Your task to perform on an android device: Open wifi settings Image 0: 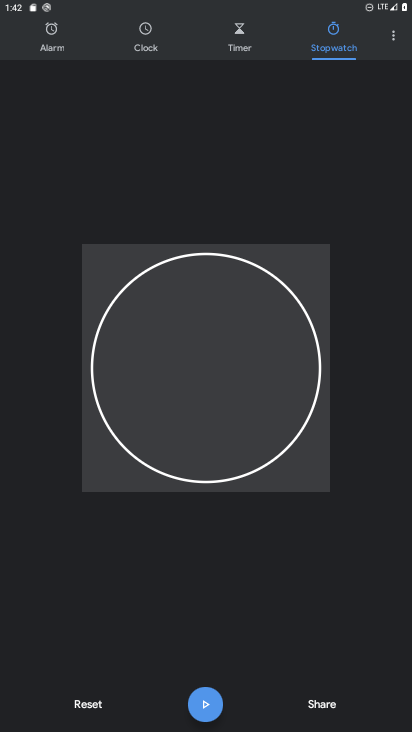
Step 0: press home button
Your task to perform on an android device: Open wifi settings Image 1: 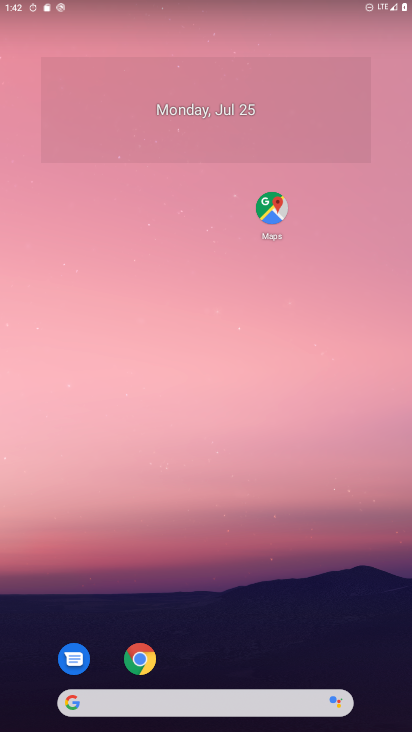
Step 1: drag from (33, 692) to (216, 199)
Your task to perform on an android device: Open wifi settings Image 2: 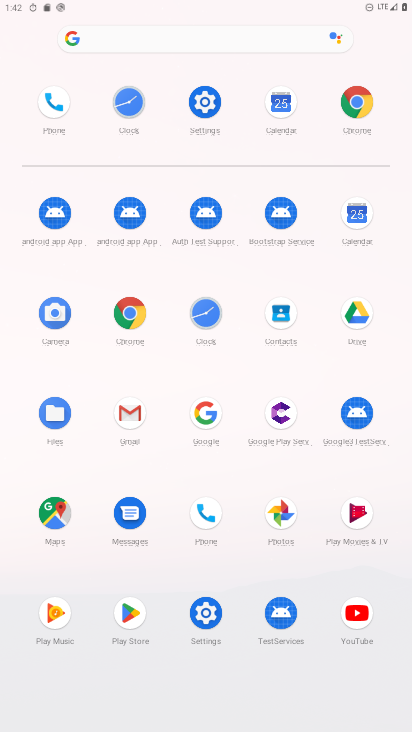
Step 2: click (191, 605)
Your task to perform on an android device: Open wifi settings Image 3: 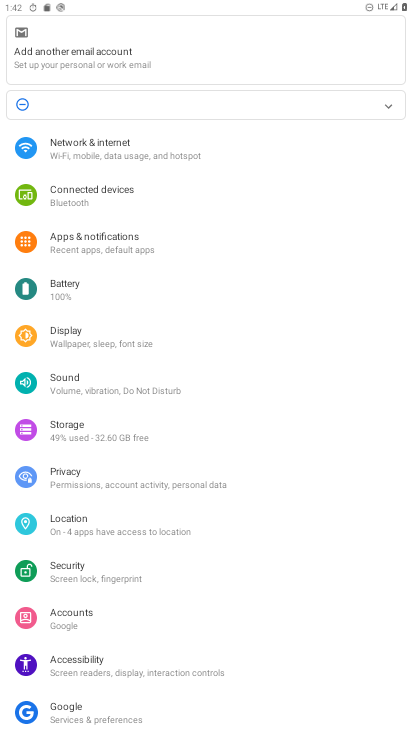
Step 3: click (133, 144)
Your task to perform on an android device: Open wifi settings Image 4: 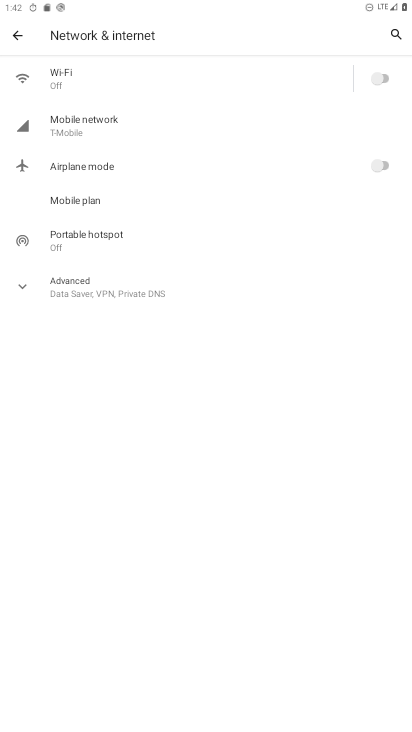
Step 4: click (102, 91)
Your task to perform on an android device: Open wifi settings Image 5: 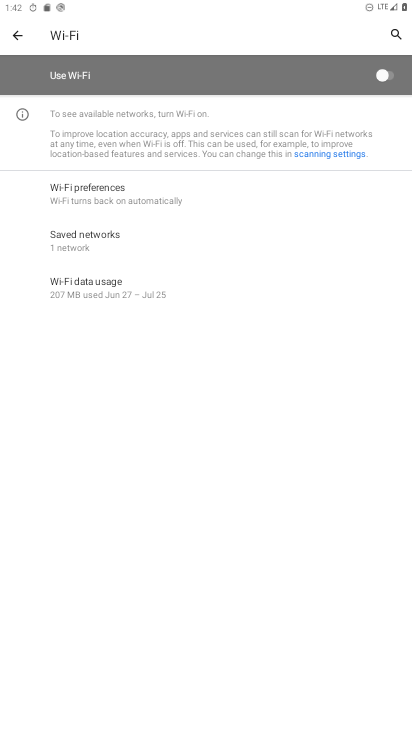
Step 5: task complete